Your task to perform on an android device: change your default location settings in chrome Image 0: 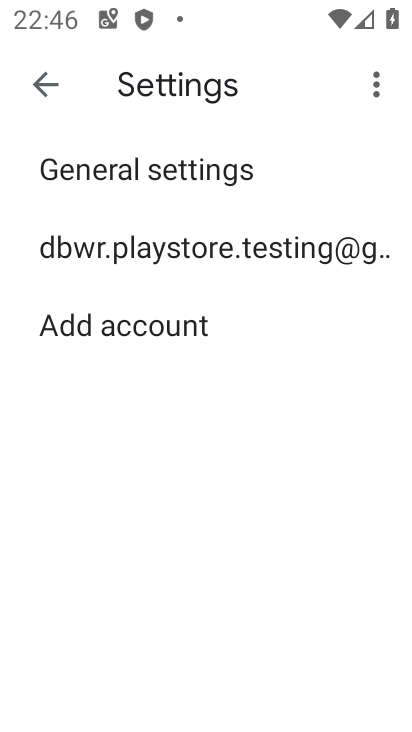
Step 0: press back button
Your task to perform on an android device: change your default location settings in chrome Image 1: 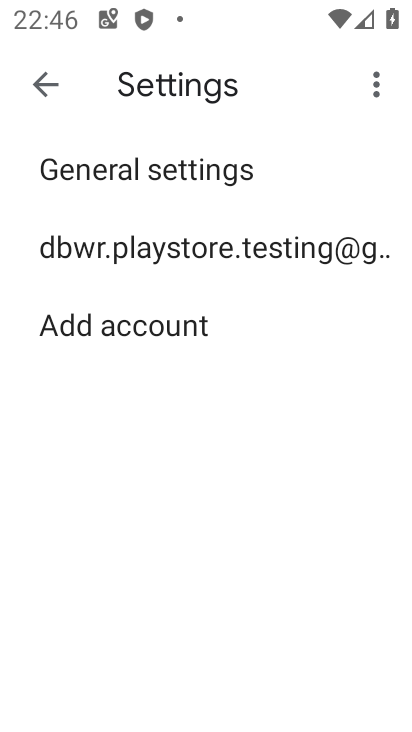
Step 1: press home button
Your task to perform on an android device: change your default location settings in chrome Image 2: 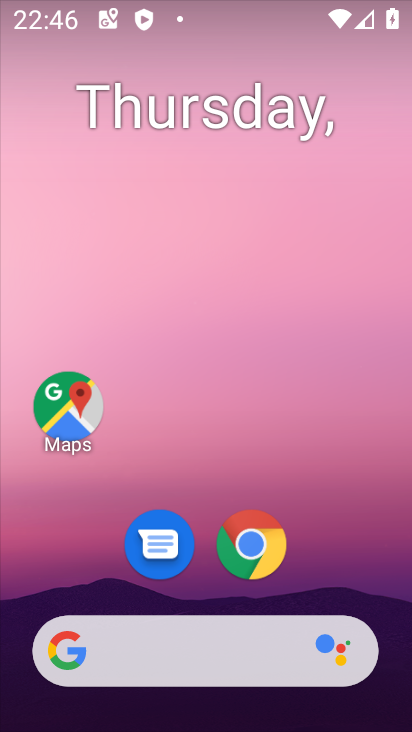
Step 2: drag from (345, 560) to (318, 28)
Your task to perform on an android device: change your default location settings in chrome Image 3: 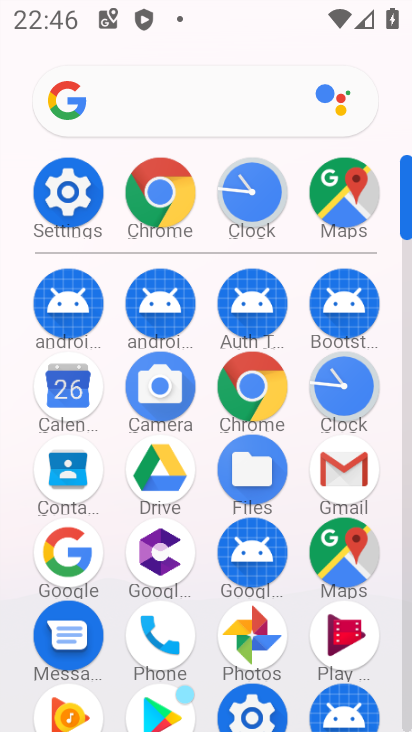
Step 3: click (155, 191)
Your task to perform on an android device: change your default location settings in chrome Image 4: 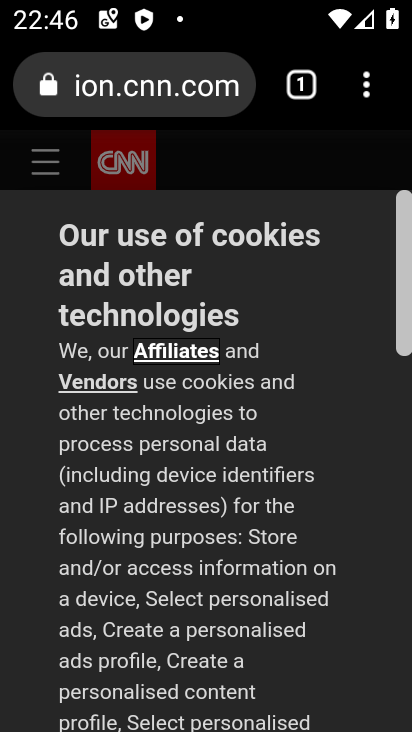
Step 4: drag from (368, 81) to (182, 590)
Your task to perform on an android device: change your default location settings in chrome Image 5: 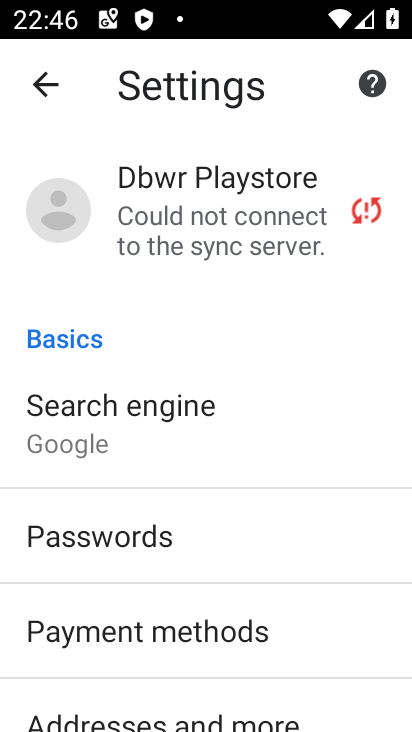
Step 5: drag from (322, 629) to (268, 164)
Your task to perform on an android device: change your default location settings in chrome Image 6: 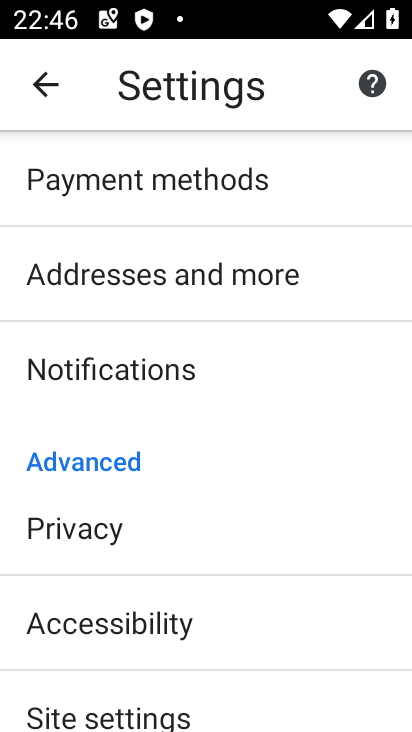
Step 6: drag from (210, 625) to (195, 119)
Your task to perform on an android device: change your default location settings in chrome Image 7: 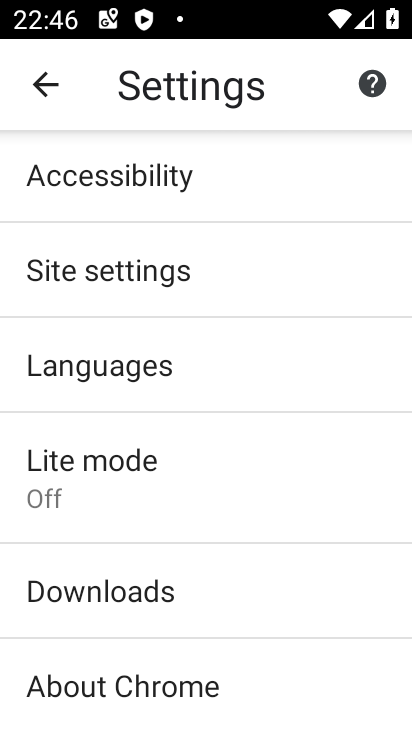
Step 7: drag from (248, 538) to (228, 158)
Your task to perform on an android device: change your default location settings in chrome Image 8: 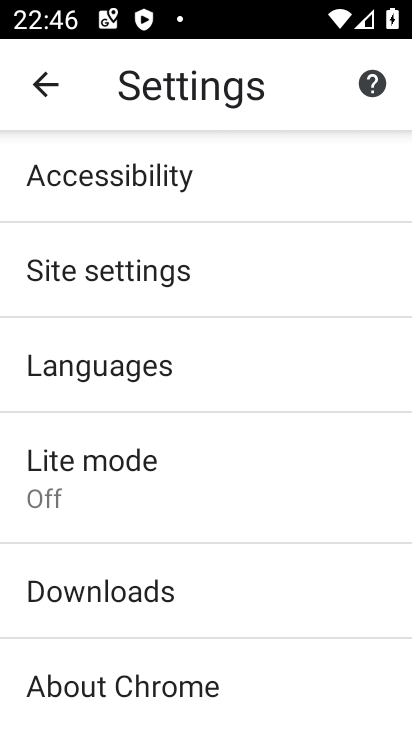
Step 8: click (185, 246)
Your task to perform on an android device: change your default location settings in chrome Image 9: 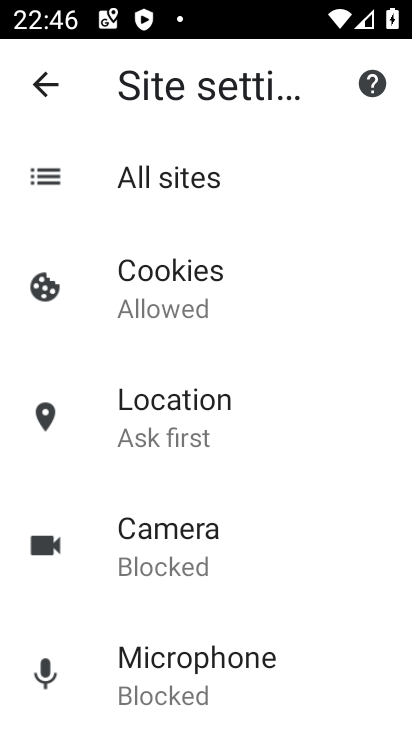
Step 9: click (222, 403)
Your task to perform on an android device: change your default location settings in chrome Image 10: 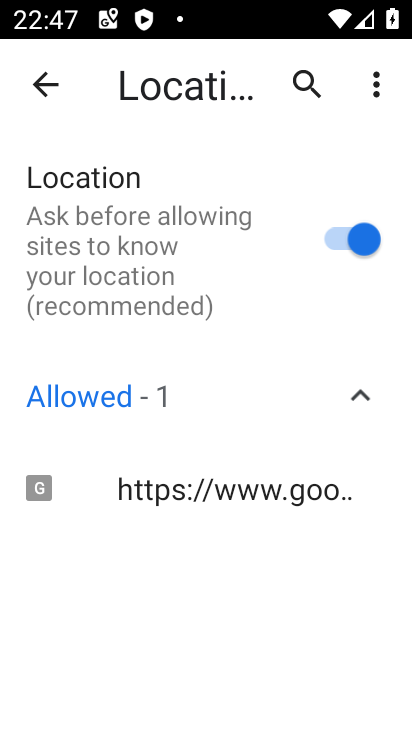
Step 10: click (328, 231)
Your task to perform on an android device: change your default location settings in chrome Image 11: 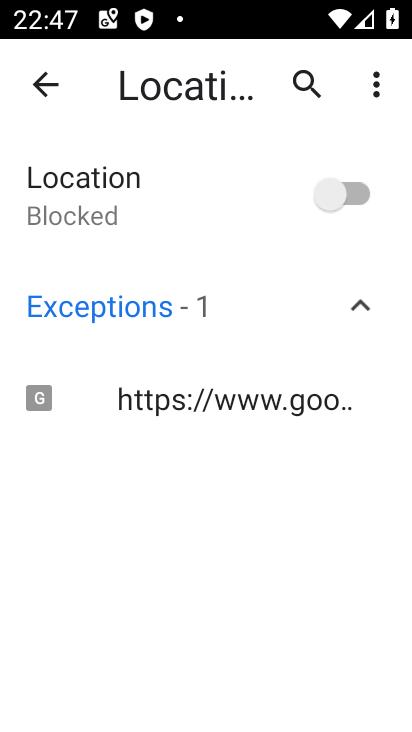
Step 11: task complete